Your task to perform on an android device: open app "LiveIn - Share Your Moment" (install if not already installed) and enter user name: "certifies@gmail.com" and password: "compartmented" Image 0: 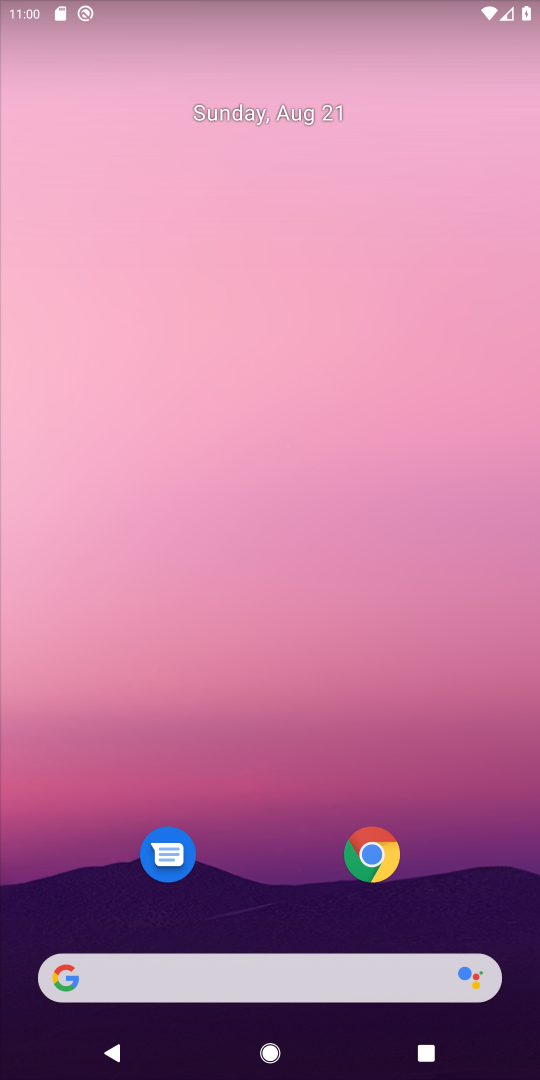
Step 0: drag from (342, 948) to (296, 247)
Your task to perform on an android device: open app "LiveIn - Share Your Moment" (install if not already installed) and enter user name: "certifies@gmail.com" and password: "compartmented" Image 1: 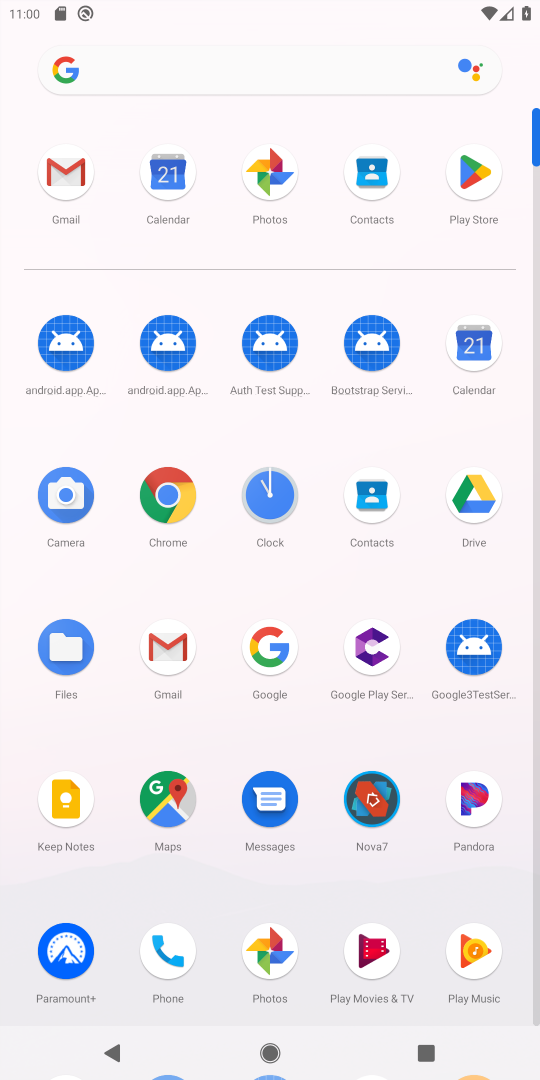
Step 1: click (448, 195)
Your task to perform on an android device: open app "LiveIn - Share Your Moment" (install if not already installed) and enter user name: "certifies@gmail.com" and password: "compartmented" Image 2: 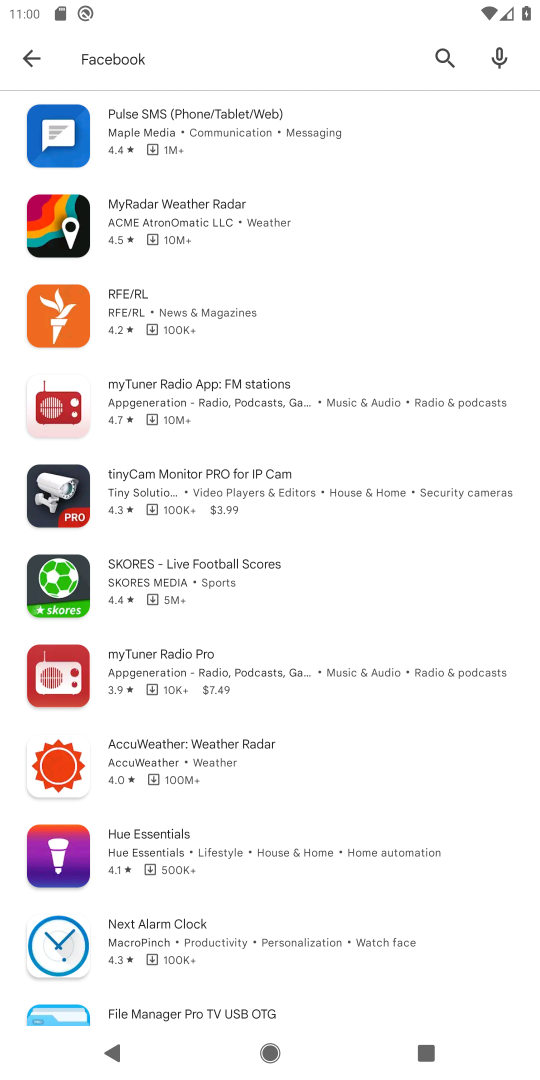
Step 2: click (452, 66)
Your task to perform on an android device: open app "LiveIn - Share Your Moment" (install if not already installed) and enter user name: "certifies@gmail.com" and password: "compartmented" Image 3: 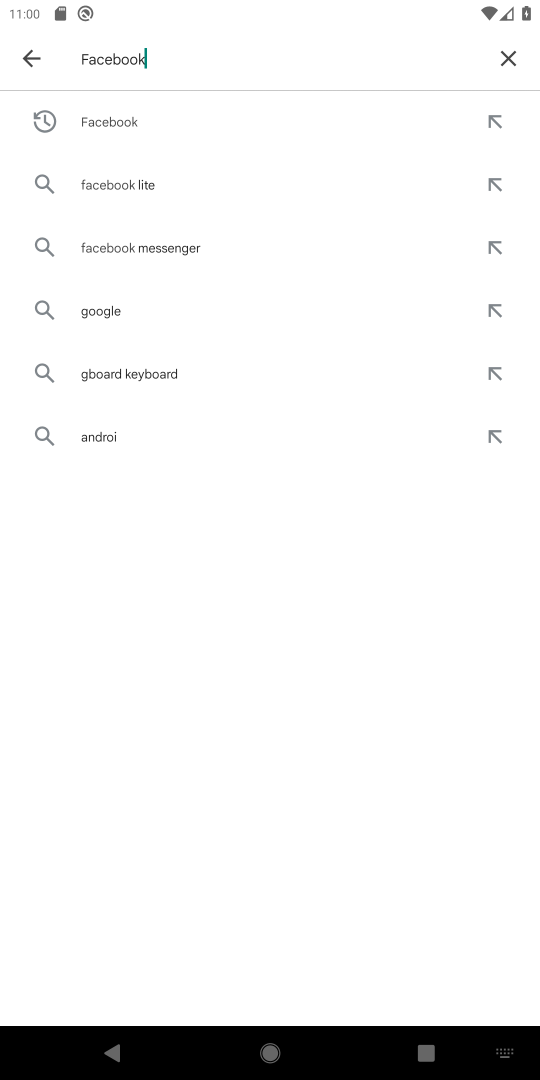
Step 3: click (517, 63)
Your task to perform on an android device: open app "LiveIn - Share Your Moment" (install if not already installed) and enter user name: "certifies@gmail.com" and password: "compartmented" Image 4: 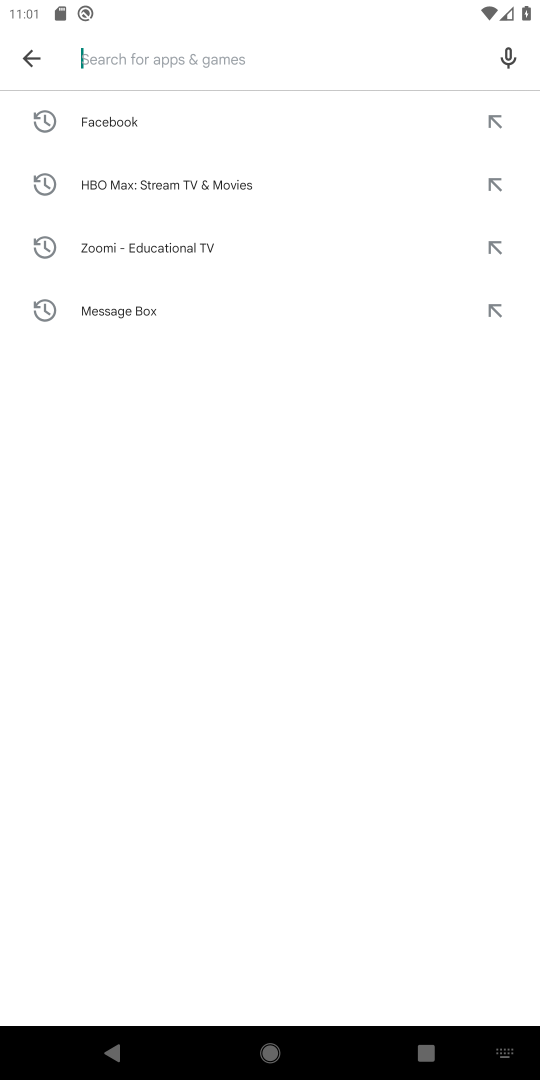
Step 4: type "livein"
Your task to perform on an android device: open app "LiveIn - Share Your Moment" (install if not already installed) and enter user name: "certifies@gmail.com" and password: "compartmented" Image 5: 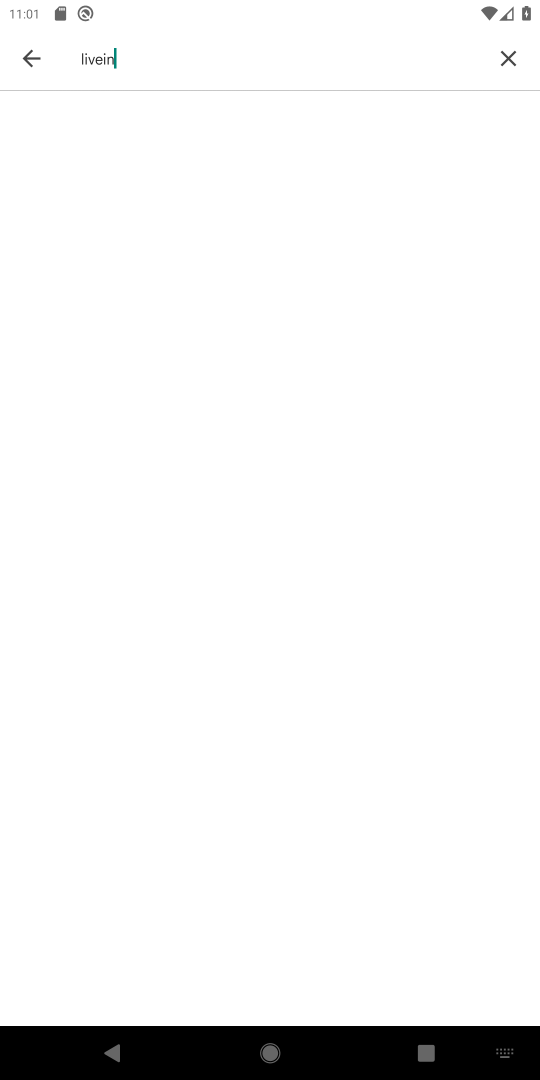
Step 5: task complete